Your task to perform on an android device: open app "HBO Max: Stream TV & Movies" Image 0: 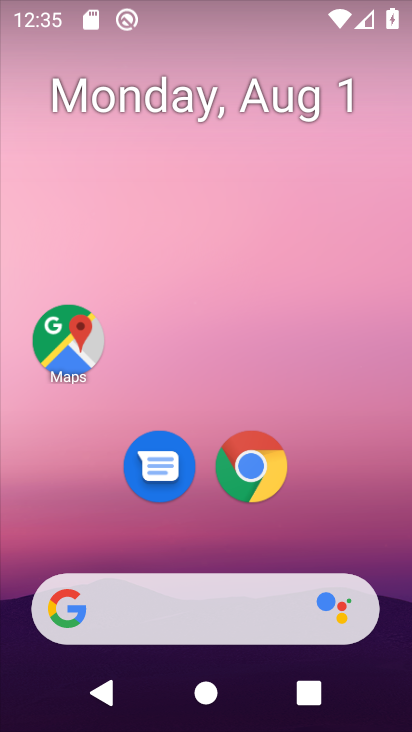
Step 0: drag from (220, 560) to (210, 7)
Your task to perform on an android device: open app "HBO Max: Stream TV & Movies" Image 1: 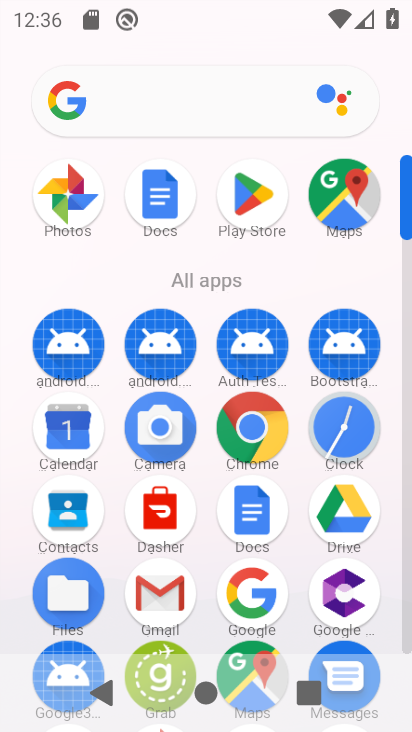
Step 1: click (247, 220)
Your task to perform on an android device: open app "HBO Max: Stream TV & Movies" Image 2: 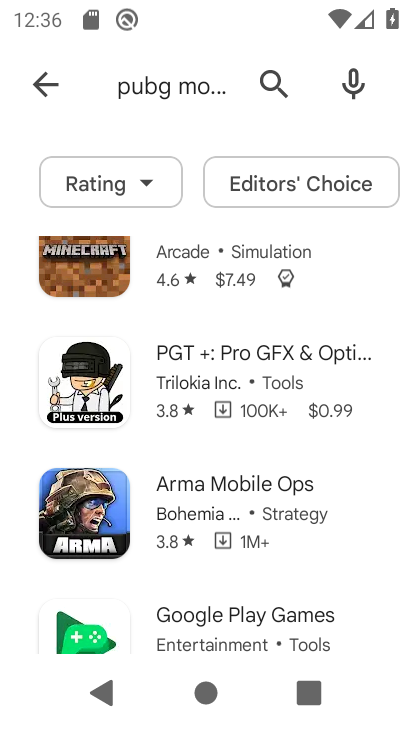
Step 2: click (158, 91)
Your task to perform on an android device: open app "HBO Max: Stream TV & Movies" Image 3: 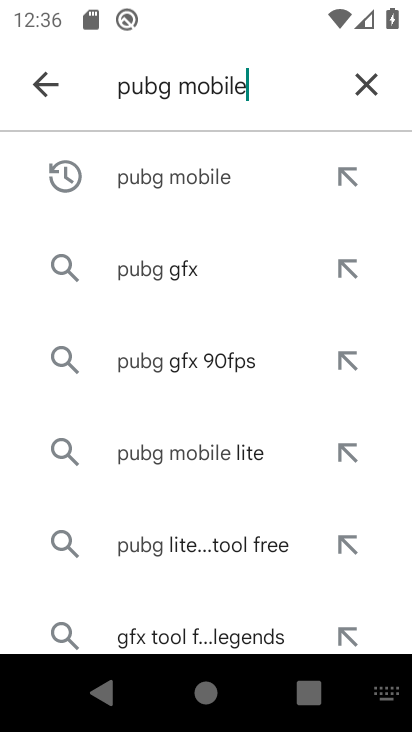
Step 3: click (375, 88)
Your task to perform on an android device: open app "HBO Max: Stream TV & Movies" Image 4: 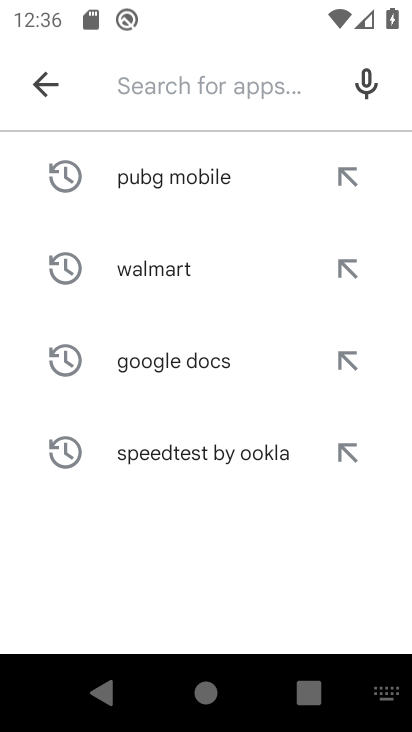
Step 4: type "HBO max"
Your task to perform on an android device: open app "HBO Max: Stream TV & Movies" Image 5: 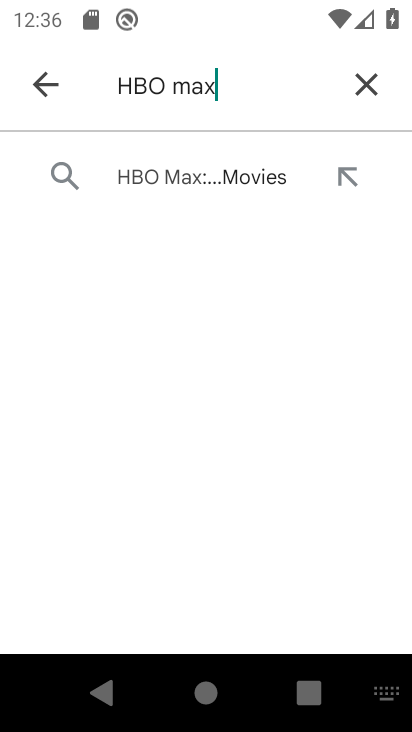
Step 5: click (179, 194)
Your task to perform on an android device: open app "HBO Max: Stream TV & Movies" Image 6: 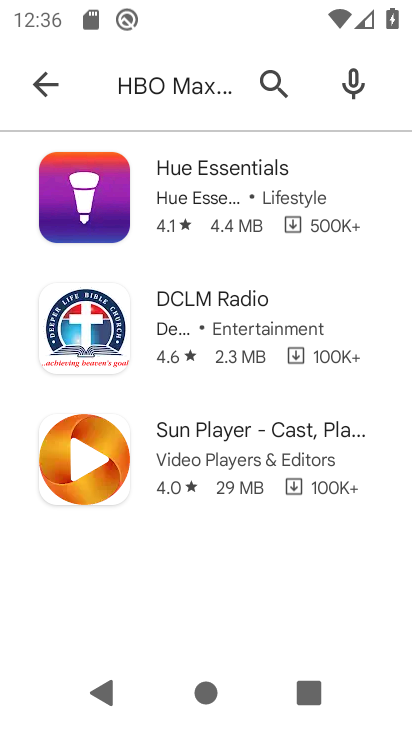
Step 6: task complete